Your task to perform on an android device: Go to accessibility settings Image 0: 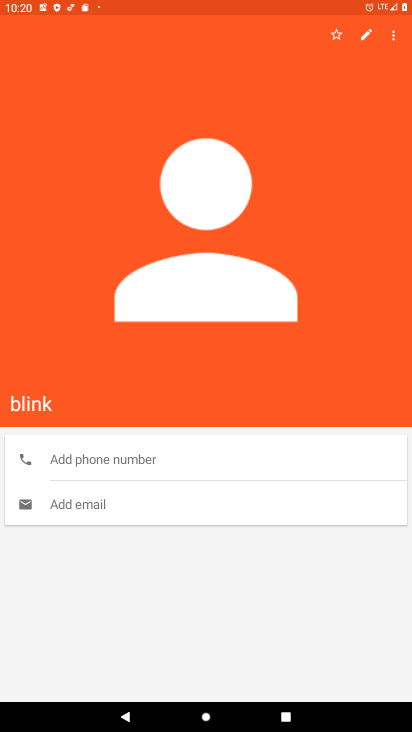
Step 0: press home button
Your task to perform on an android device: Go to accessibility settings Image 1: 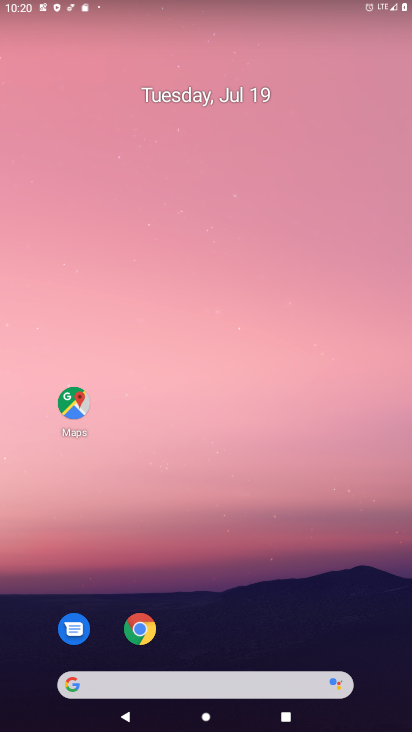
Step 1: drag from (226, 596) to (196, 9)
Your task to perform on an android device: Go to accessibility settings Image 2: 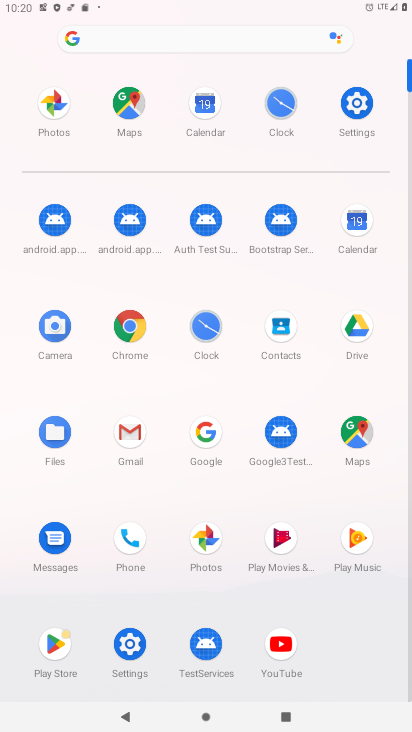
Step 2: click (125, 650)
Your task to perform on an android device: Go to accessibility settings Image 3: 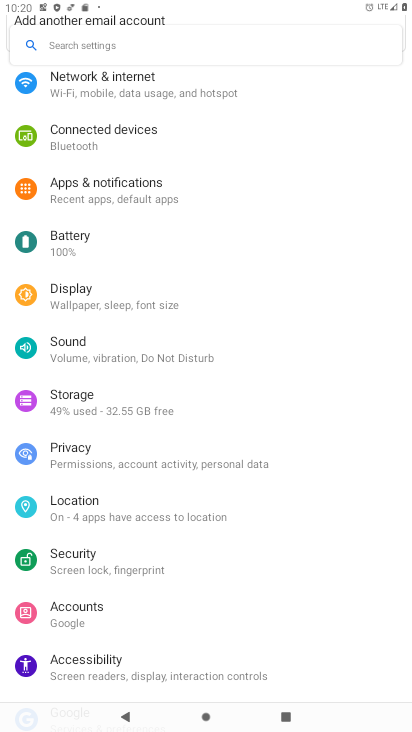
Step 3: click (76, 674)
Your task to perform on an android device: Go to accessibility settings Image 4: 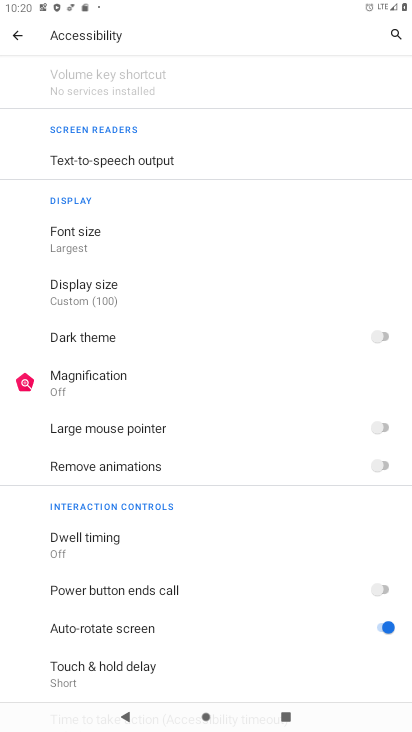
Step 4: task complete